Your task to perform on an android device: toggle airplane mode Image 0: 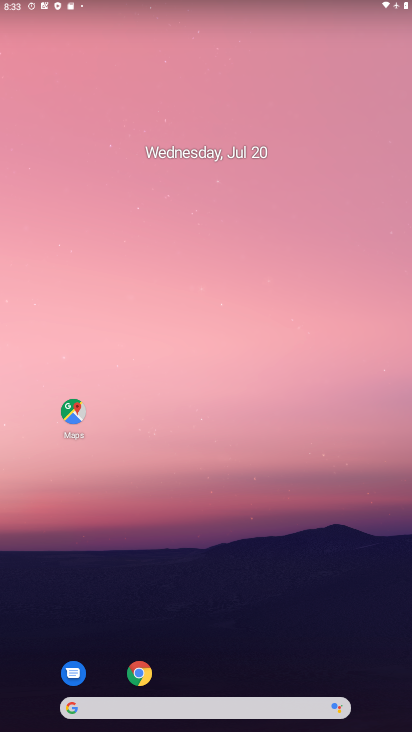
Step 0: drag from (381, 666) to (129, 142)
Your task to perform on an android device: toggle airplane mode Image 1: 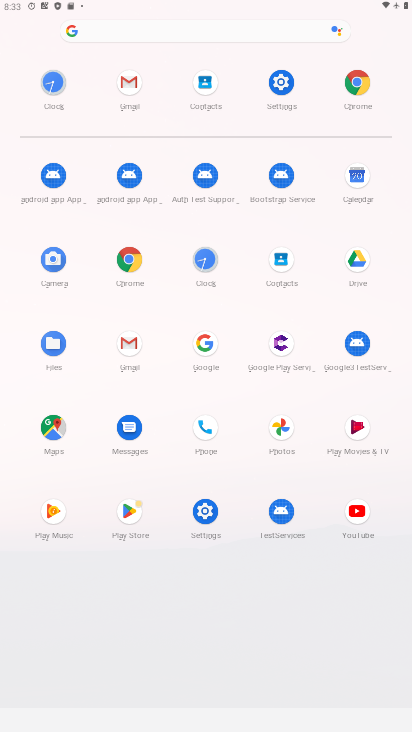
Step 1: drag from (220, 4) to (268, 600)
Your task to perform on an android device: toggle airplane mode Image 2: 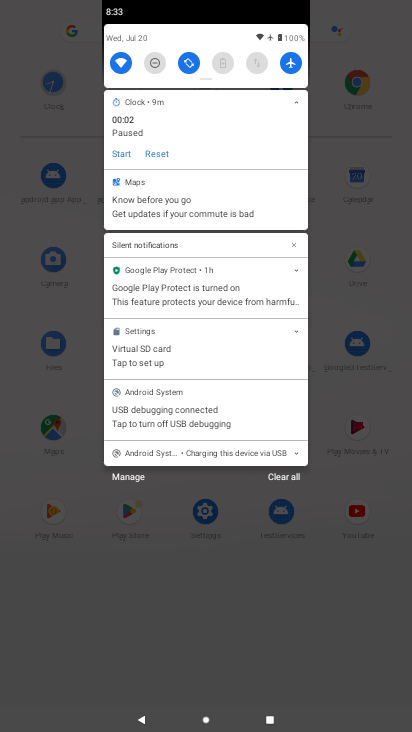
Step 2: click (285, 59)
Your task to perform on an android device: toggle airplane mode Image 3: 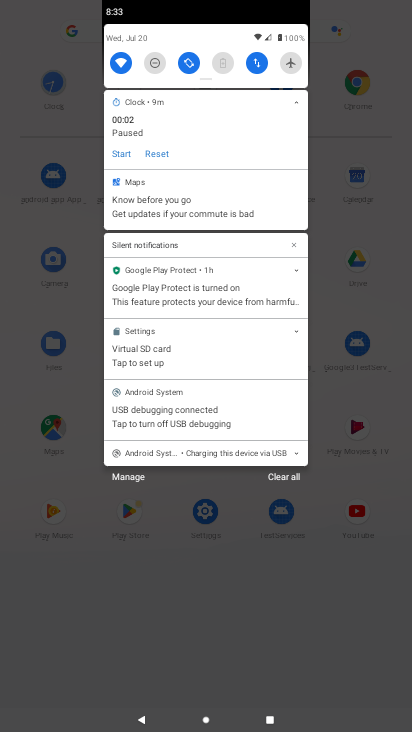
Step 3: task complete